Your task to perform on an android device: turn on the 24-hour format for clock Image 0: 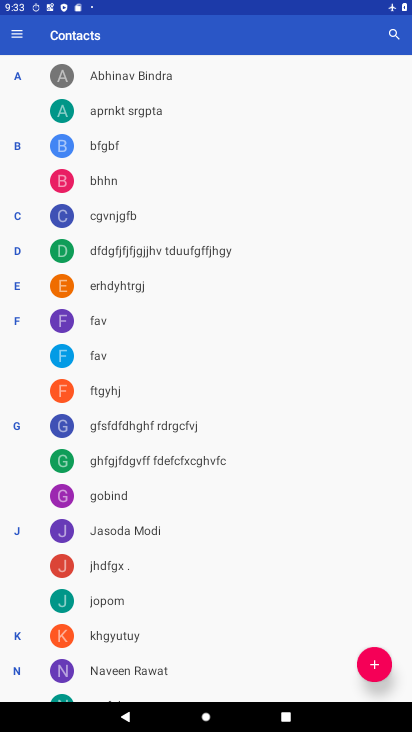
Step 0: press back button
Your task to perform on an android device: turn on the 24-hour format for clock Image 1: 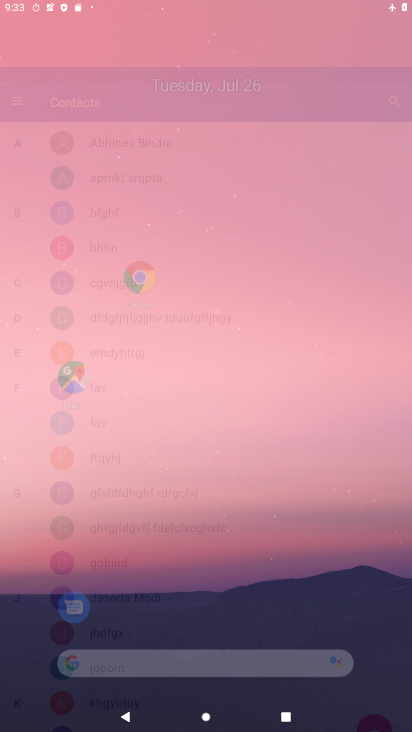
Step 1: press back button
Your task to perform on an android device: turn on the 24-hour format for clock Image 2: 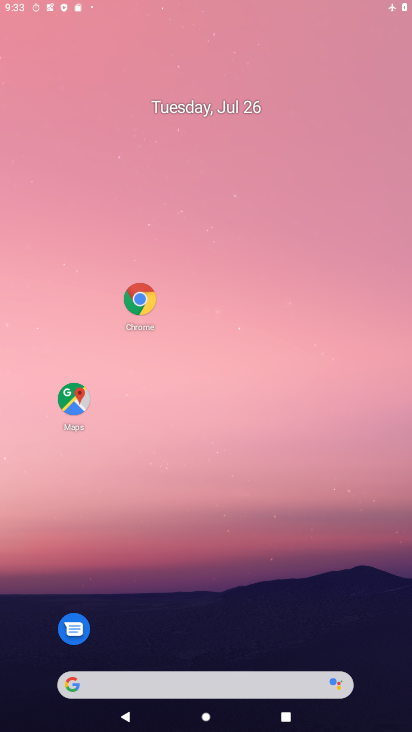
Step 2: press back button
Your task to perform on an android device: turn on the 24-hour format for clock Image 3: 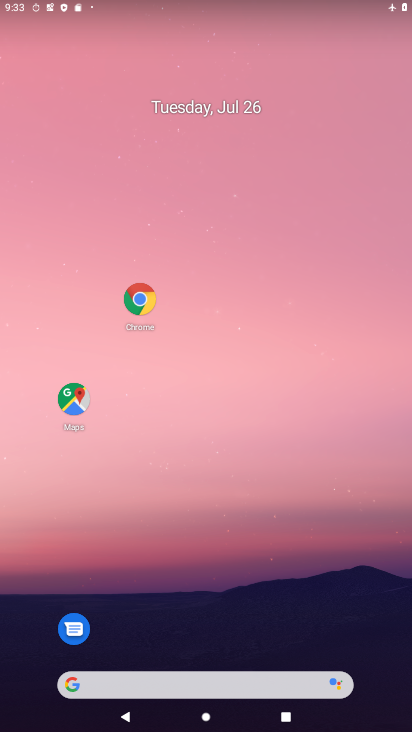
Step 3: click (121, 6)
Your task to perform on an android device: turn on the 24-hour format for clock Image 4: 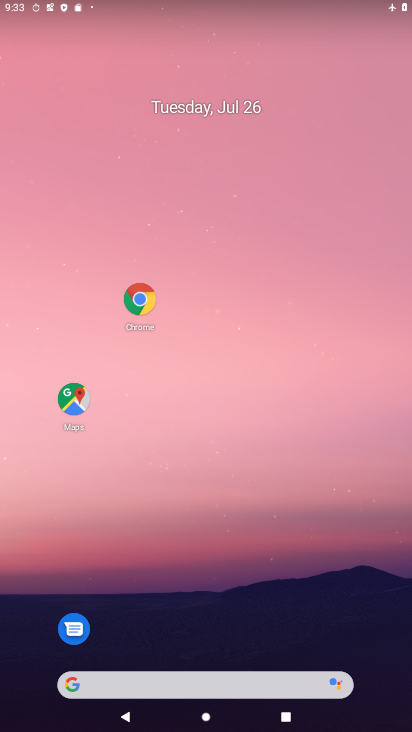
Step 4: drag from (237, 414) to (184, 59)
Your task to perform on an android device: turn on the 24-hour format for clock Image 5: 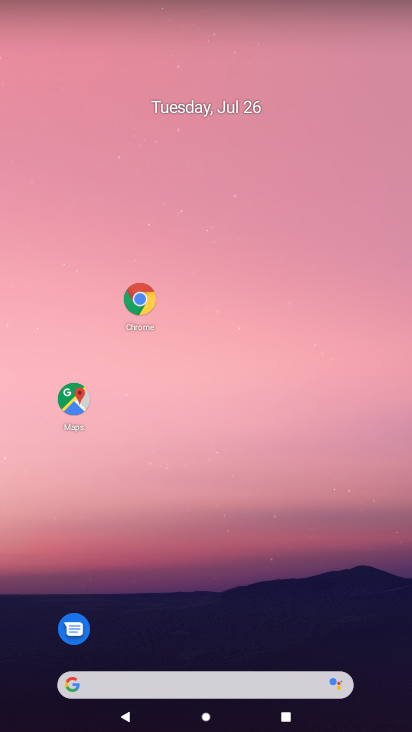
Step 5: drag from (261, 340) to (139, 36)
Your task to perform on an android device: turn on the 24-hour format for clock Image 6: 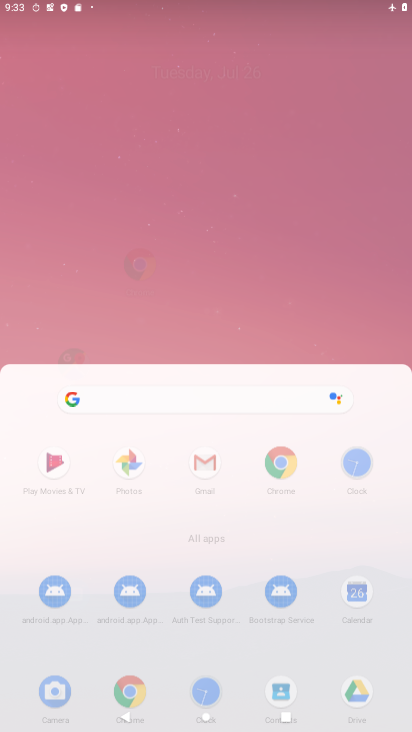
Step 6: drag from (340, 586) to (188, 10)
Your task to perform on an android device: turn on the 24-hour format for clock Image 7: 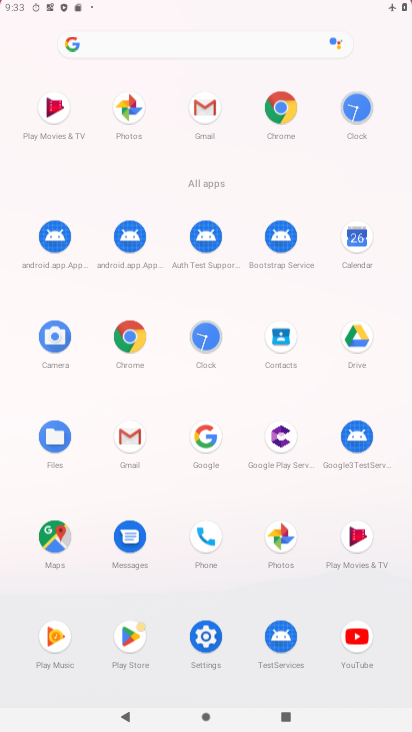
Step 7: drag from (179, 35) to (258, 42)
Your task to perform on an android device: turn on the 24-hour format for clock Image 8: 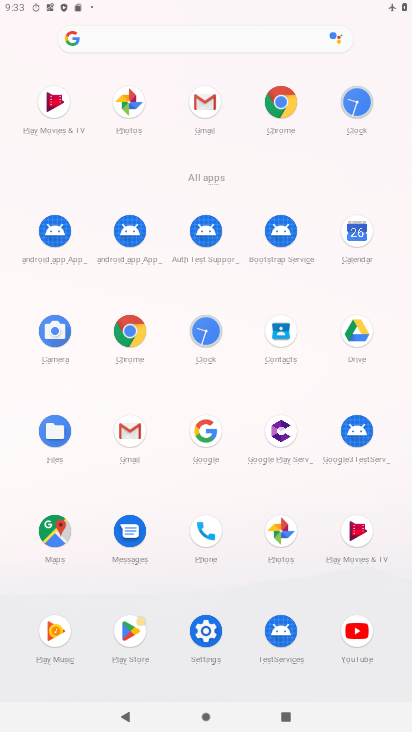
Step 8: click (207, 326)
Your task to perform on an android device: turn on the 24-hour format for clock Image 9: 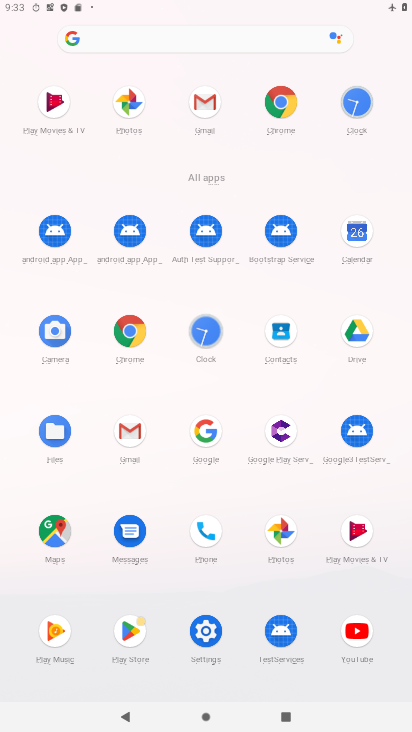
Step 9: click (207, 326)
Your task to perform on an android device: turn on the 24-hour format for clock Image 10: 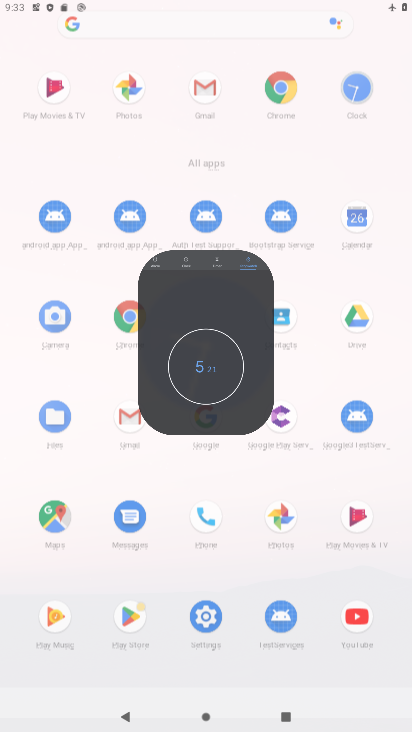
Step 10: click (207, 326)
Your task to perform on an android device: turn on the 24-hour format for clock Image 11: 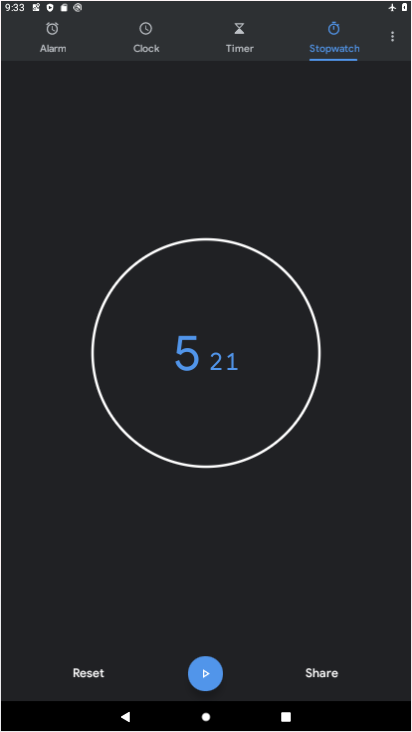
Step 11: click (206, 329)
Your task to perform on an android device: turn on the 24-hour format for clock Image 12: 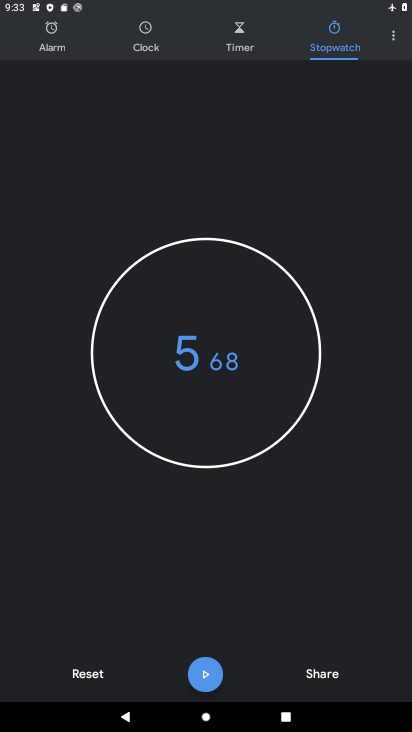
Step 12: click (398, 40)
Your task to perform on an android device: turn on the 24-hour format for clock Image 13: 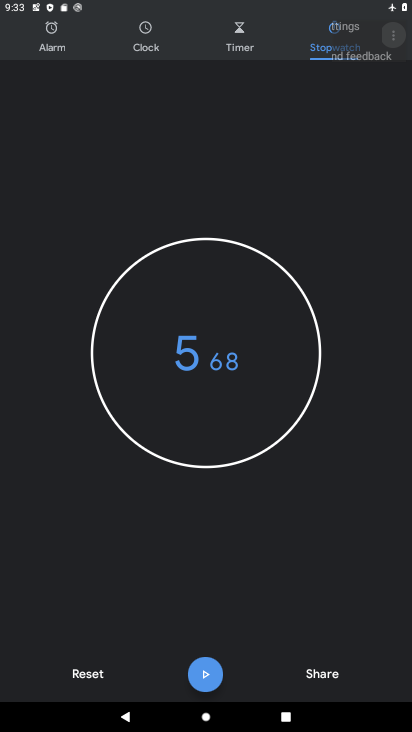
Step 13: click (398, 40)
Your task to perform on an android device: turn on the 24-hour format for clock Image 14: 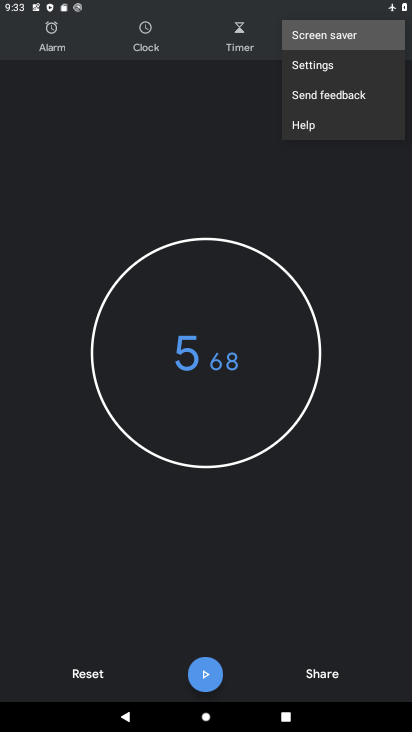
Step 14: click (398, 40)
Your task to perform on an android device: turn on the 24-hour format for clock Image 15: 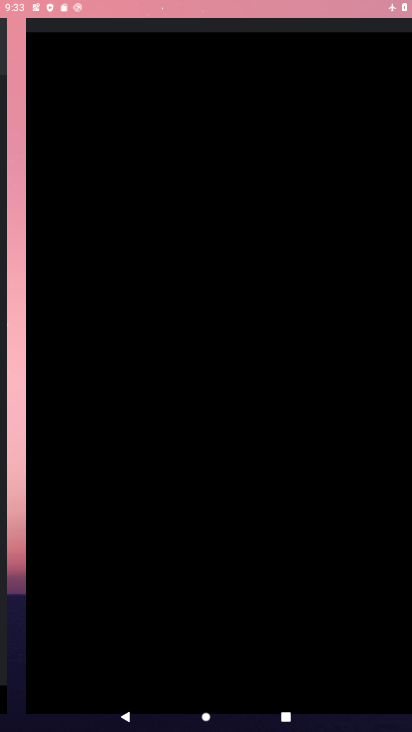
Step 15: click (318, 68)
Your task to perform on an android device: turn on the 24-hour format for clock Image 16: 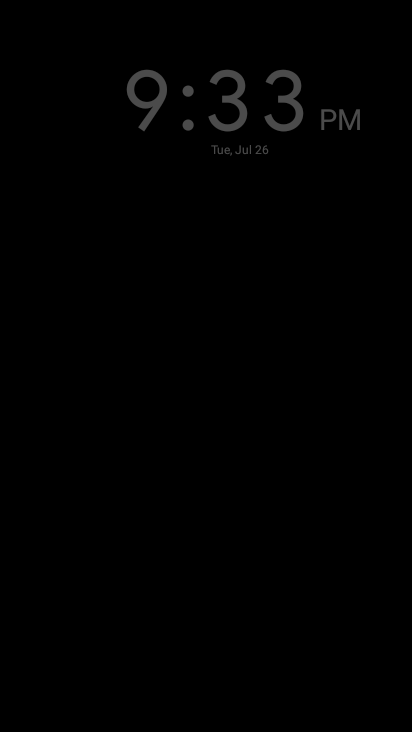
Step 16: click (313, 72)
Your task to perform on an android device: turn on the 24-hour format for clock Image 17: 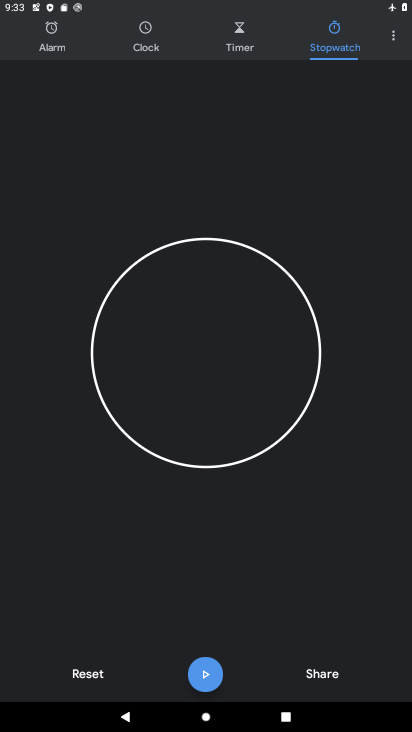
Step 17: drag from (395, 37) to (298, 69)
Your task to perform on an android device: turn on the 24-hour format for clock Image 18: 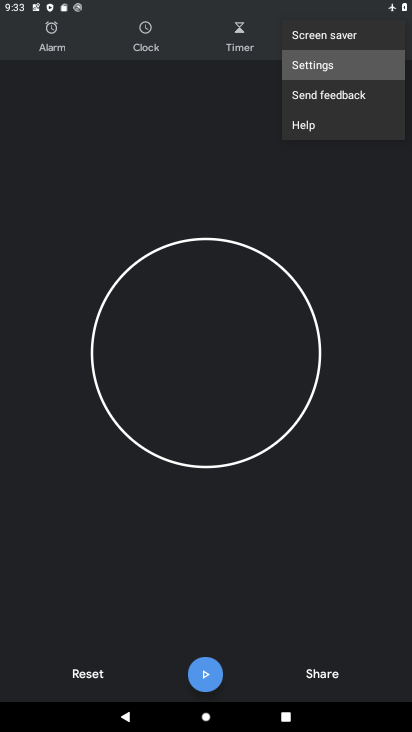
Step 18: click (297, 68)
Your task to perform on an android device: turn on the 24-hour format for clock Image 19: 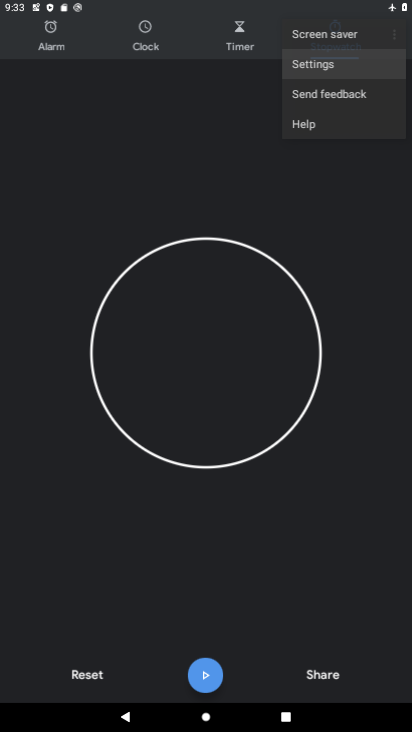
Step 19: click (299, 63)
Your task to perform on an android device: turn on the 24-hour format for clock Image 20: 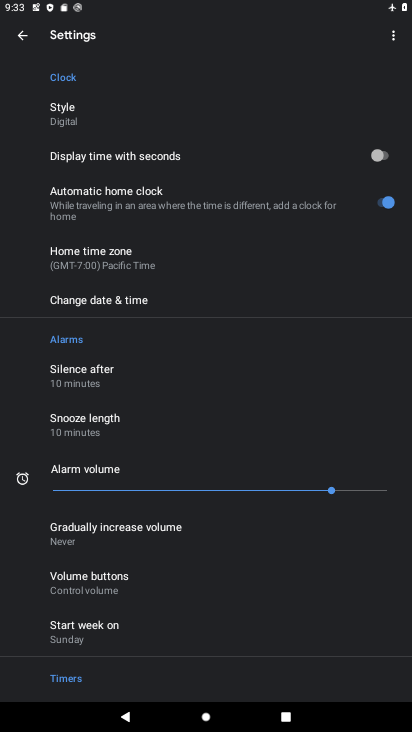
Step 20: click (117, 302)
Your task to perform on an android device: turn on the 24-hour format for clock Image 21: 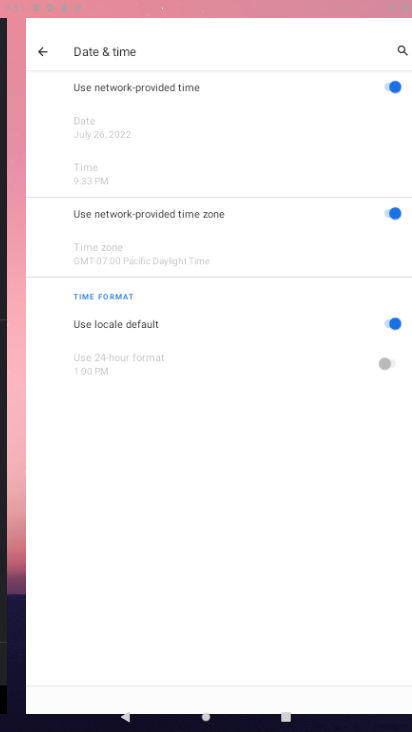
Step 21: click (113, 314)
Your task to perform on an android device: turn on the 24-hour format for clock Image 22: 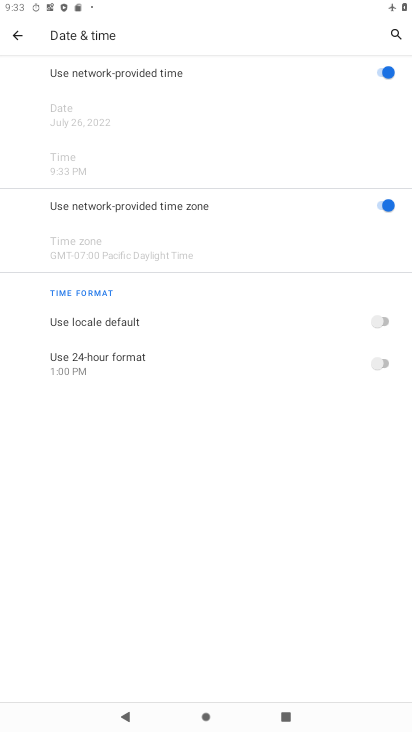
Step 22: click (382, 357)
Your task to perform on an android device: turn on the 24-hour format for clock Image 23: 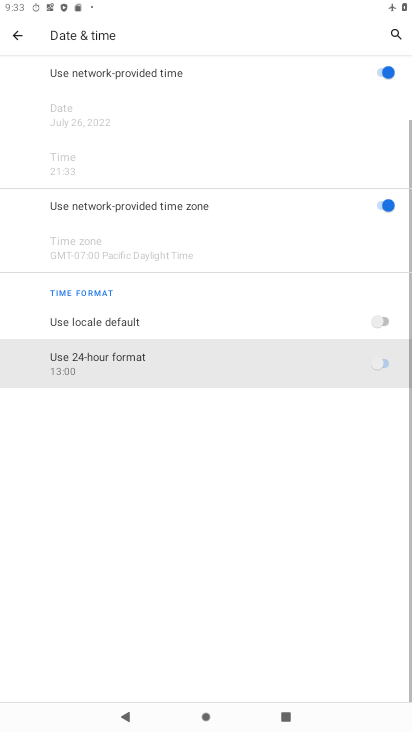
Step 23: click (382, 357)
Your task to perform on an android device: turn on the 24-hour format for clock Image 24: 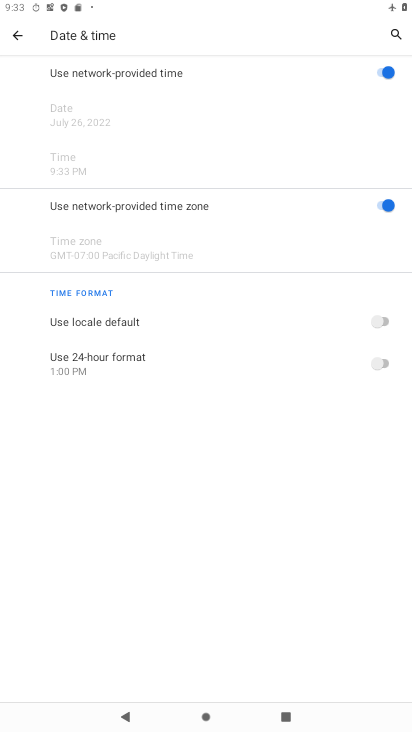
Step 24: click (373, 369)
Your task to perform on an android device: turn on the 24-hour format for clock Image 25: 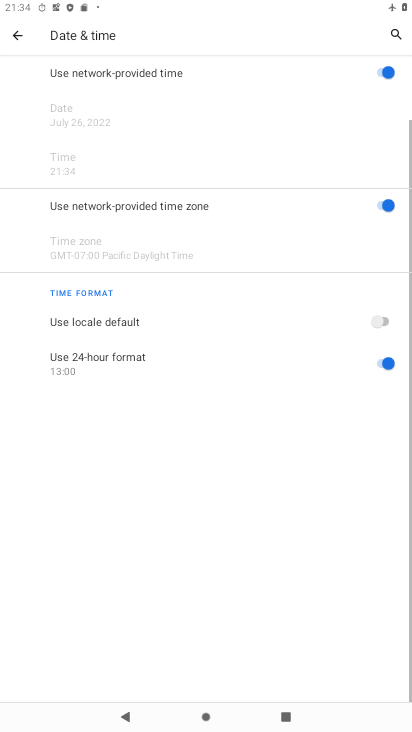
Step 25: task complete